Your task to perform on an android device: Go to Reddit.com Image 0: 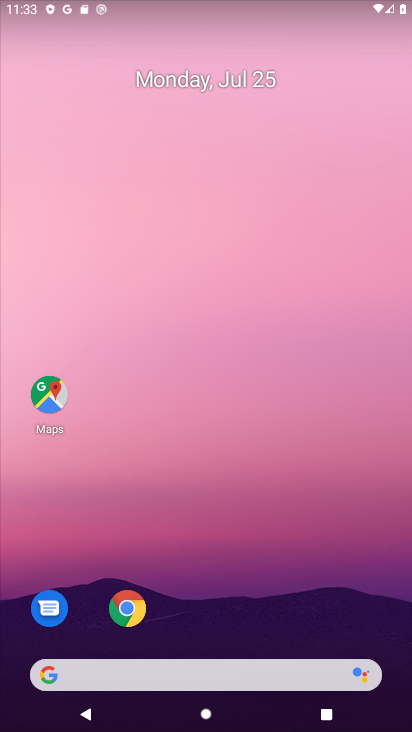
Step 0: click (136, 669)
Your task to perform on an android device: Go to Reddit.com Image 1: 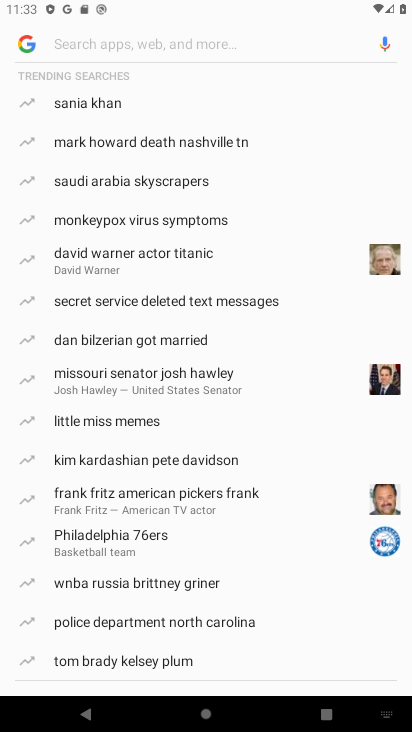
Step 1: type "reddit"
Your task to perform on an android device: Go to Reddit.com Image 2: 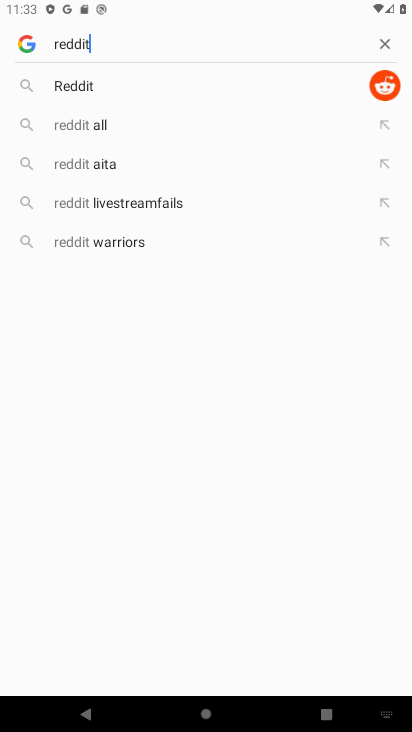
Step 2: click (82, 76)
Your task to perform on an android device: Go to Reddit.com Image 3: 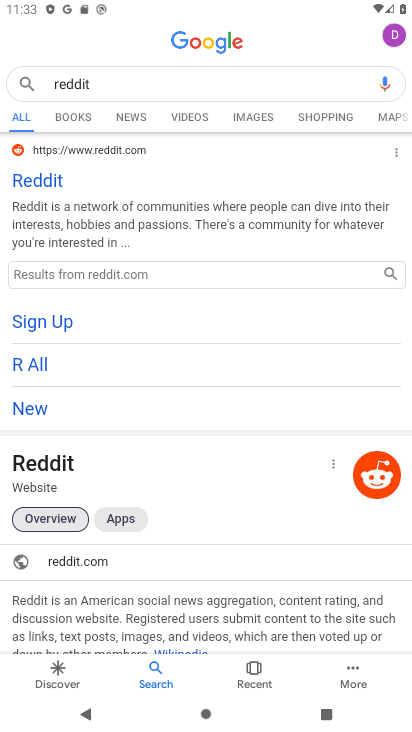
Step 3: click (38, 165)
Your task to perform on an android device: Go to Reddit.com Image 4: 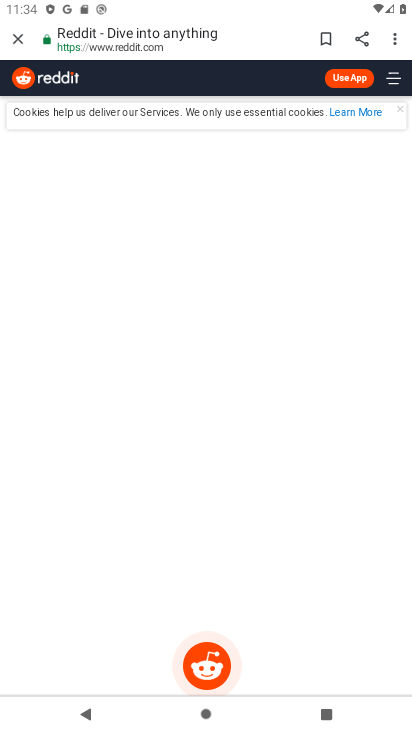
Step 4: task complete